Your task to perform on an android device: turn on notifications settings in the gmail app Image 0: 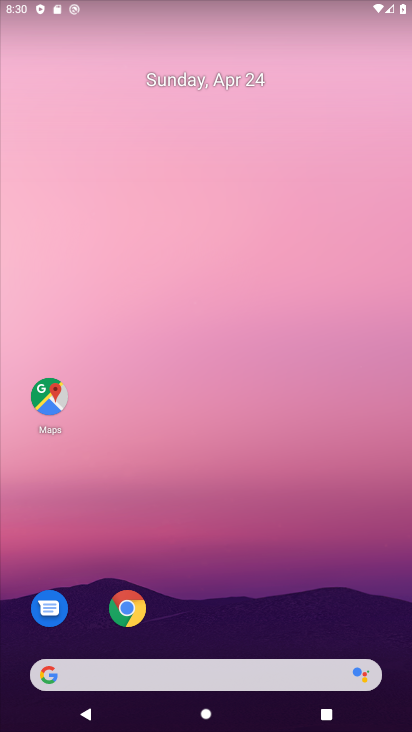
Step 0: drag from (208, 628) to (234, 121)
Your task to perform on an android device: turn on notifications settings in the gmail app Image 1: 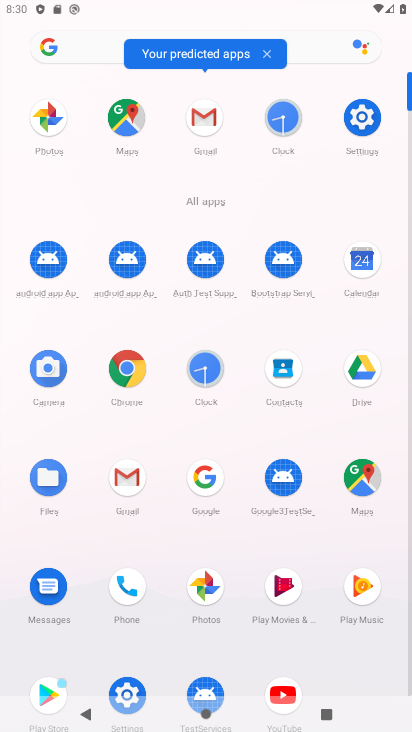
Step 1: click (204, 119)
Your task to perform on an android device: turn on notifications settings in the gmail app Image 2: 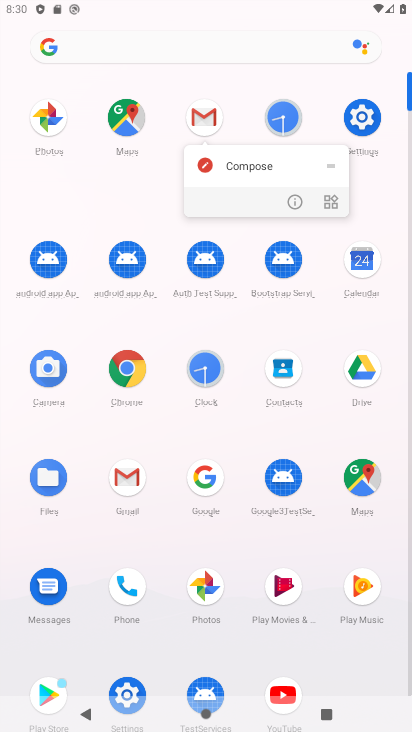
Step 2: click (204, 119)
Your task to perform on an android device: turn on notifications settings in the gmail app Image 3: 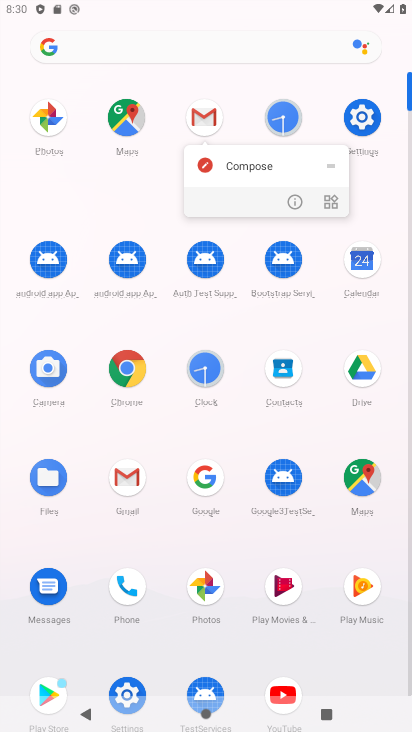
Step 3: click (204, 119)
Your task to perform on an android device: turn on notifications settings in the gmail app Image 4: 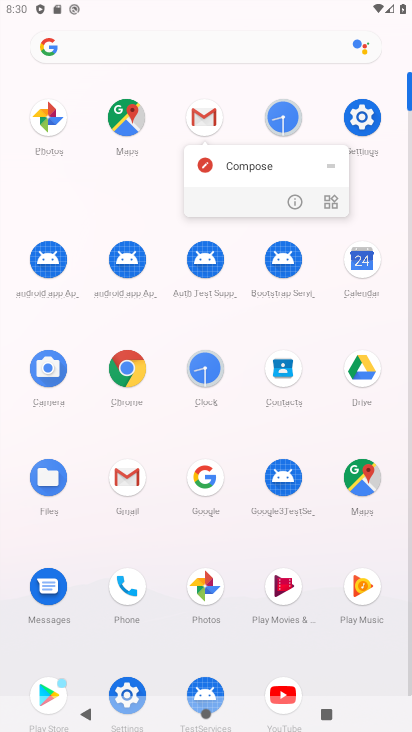
Step 4: click (209, 120)
Your task to perform on an android device: turn on notifications settings in the gmail app Image 5: 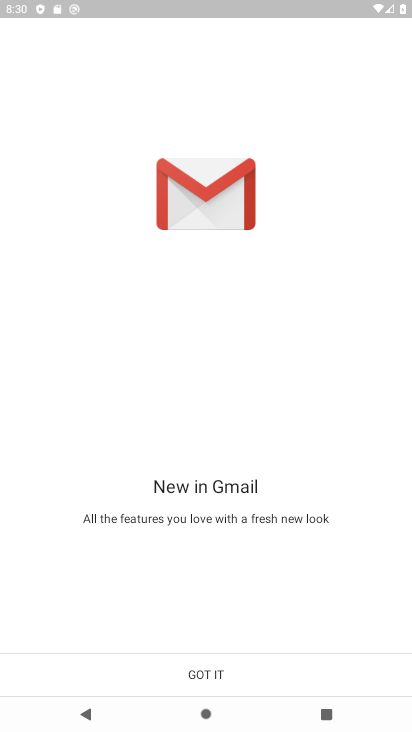
Step 5: click (207, 679)
Your task to perform on an android device: turn on notifications settings in the gmail app Image 6: 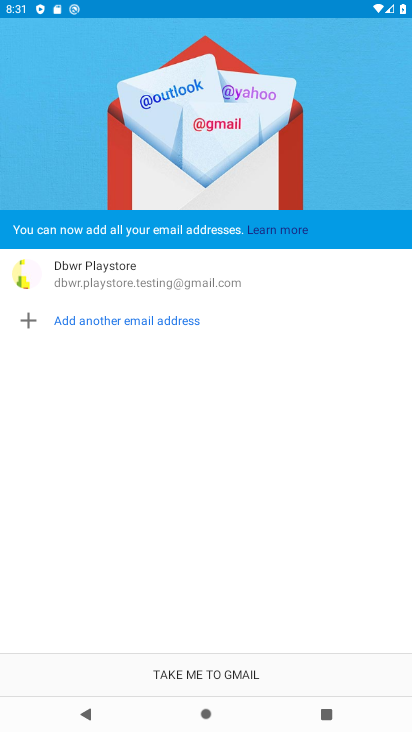
Step 6: click (176, 675)
Your task to perform on an android device: turn on notifications settings in the gmail app Image 7: 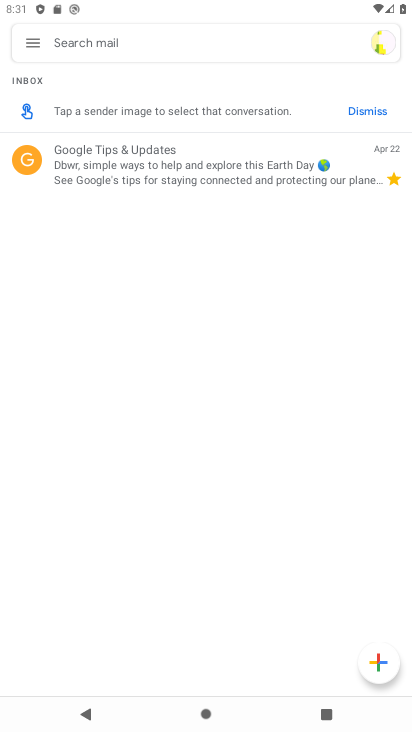
Step 7: click (35, 41)
Your task to perform on an android device: turn on notifications settings in the gmail app Image 8: 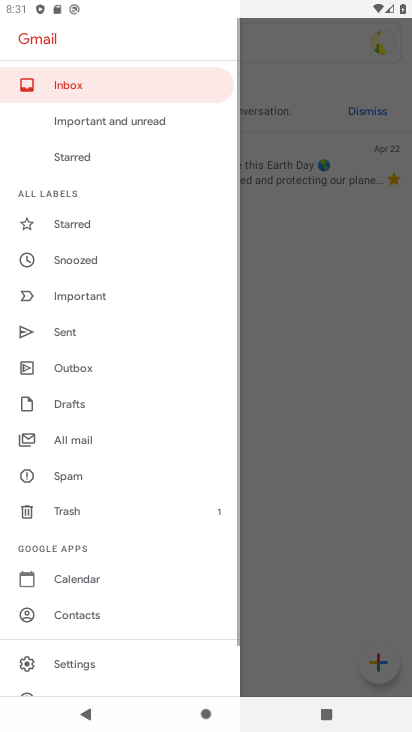
Step 8: click (90, 658)
Your task to perform on an android device: turn on notifications settings in the gmail app Image 9: 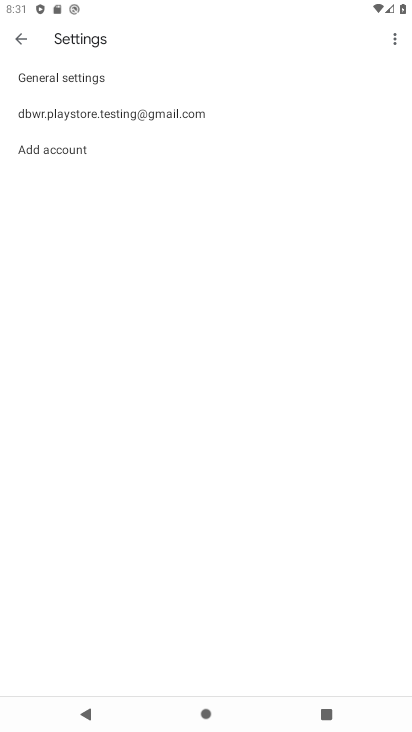
Step 9: click (154, 112)
Your task to perform on an android device: turn on notifications settings in the gmail app Image 10: 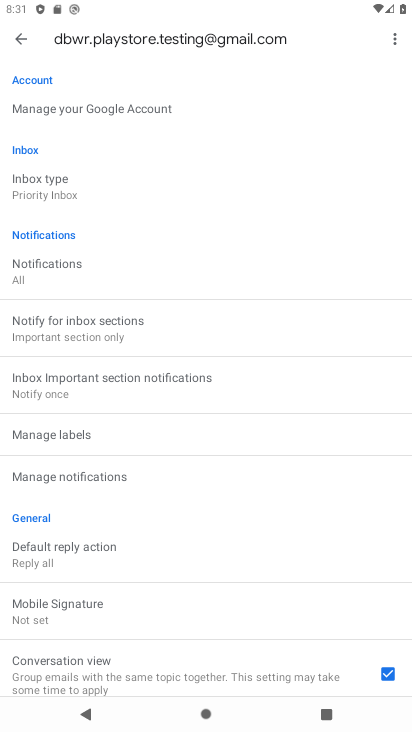
Step 10: click (103, 468)
Your task to perform on an android device: turn on notifications settings in the gmail app Image 11: 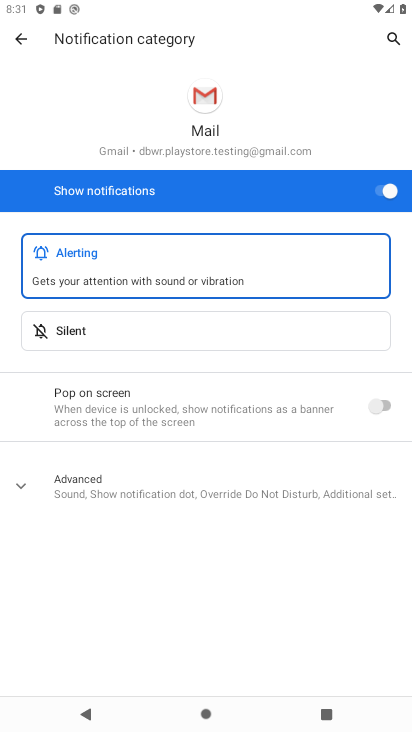
Step 11: click (376, 193)
Your task to perform on an android device: turn on notifications settings in the gmail app Image 12: 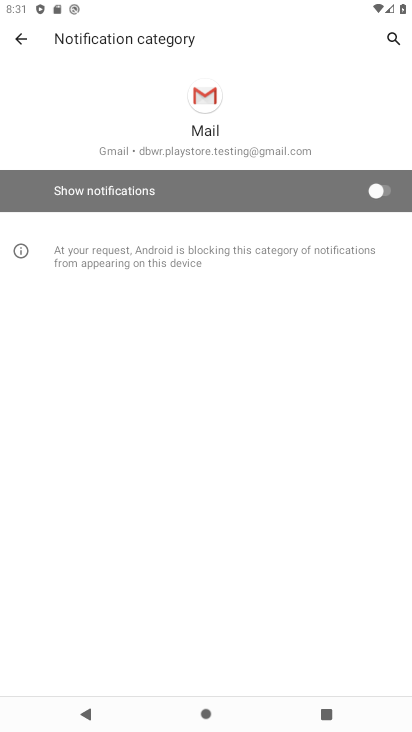
Step 12: click (386, 190)
Your task to perform on an android device: turn on notifications settings in the gmail app Image 13: 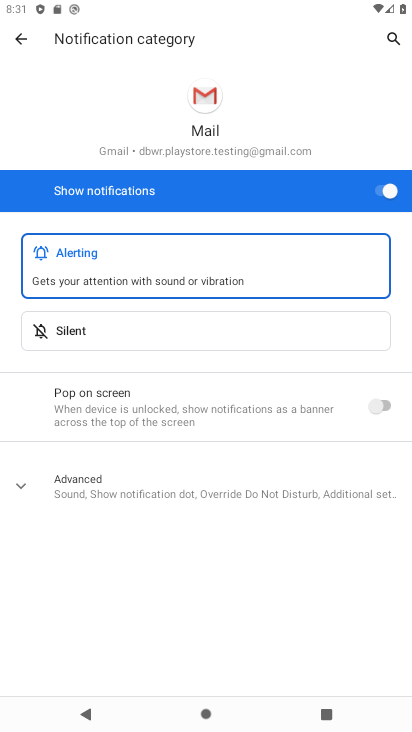
Step 13: task complete